Your task to perform on an android device: Open calendar and show me the fourth week of next month Image 0: 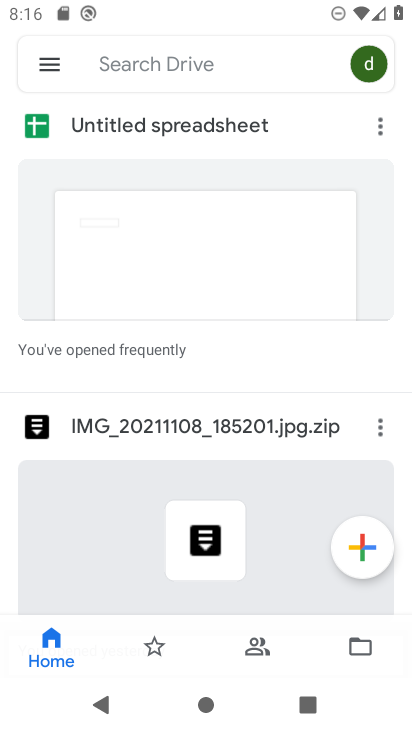
Step 0: press home button
Your task to perform on an android device: Open calendar and show me the fourth week of next month Image 1: 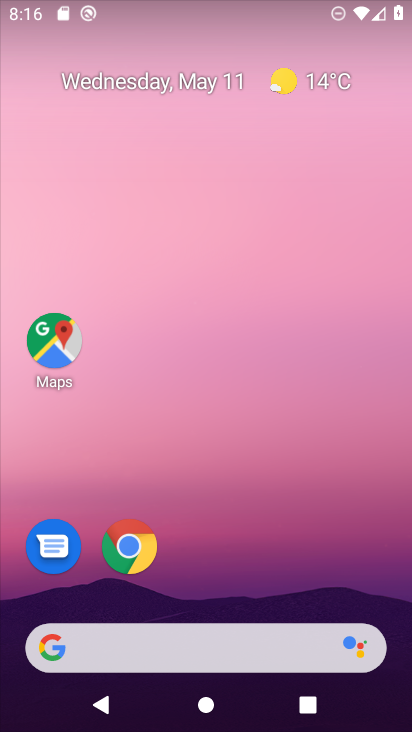
Step 1: drag from (244, 655) to (186, 113)
Your task to perform on an android device: Open calendar and show me the fourth week of next month Image 2: 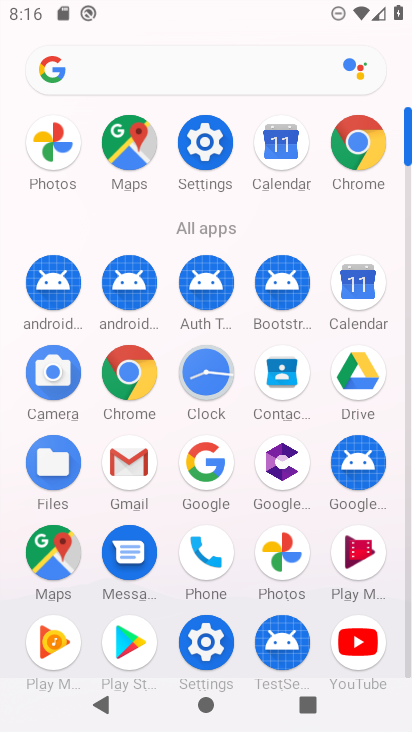
Step 2: click (361, 311)
Your task to perform on an android device: Open calendar and show me the fourth week of next month Image 3: 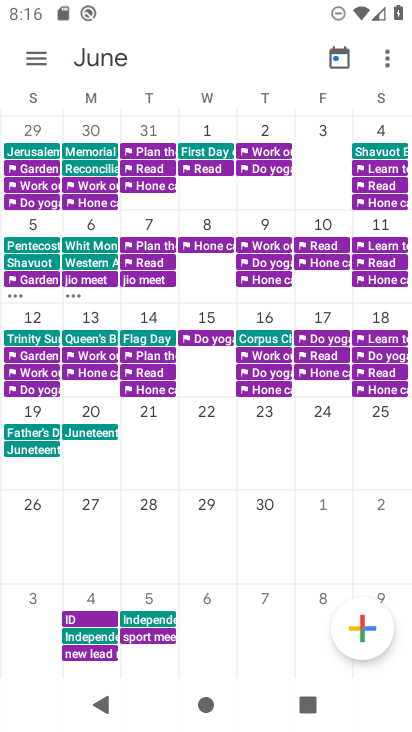
Step 3: task complete